Your task to perform on an android device: toggle wifi Image 0: 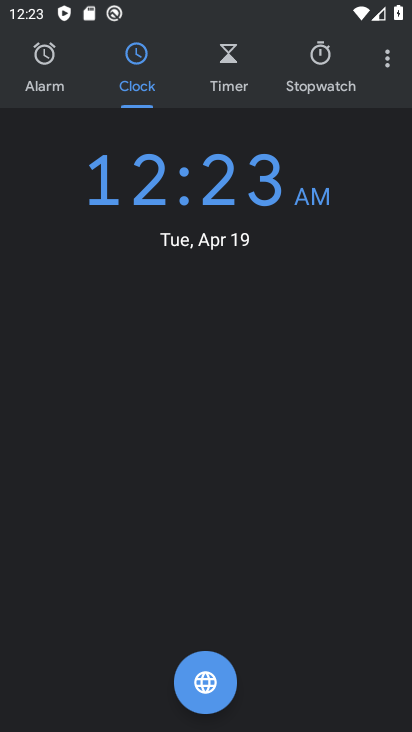
Step 0: press home button
Your task to perform on an android device: toggle wifi Image 1: 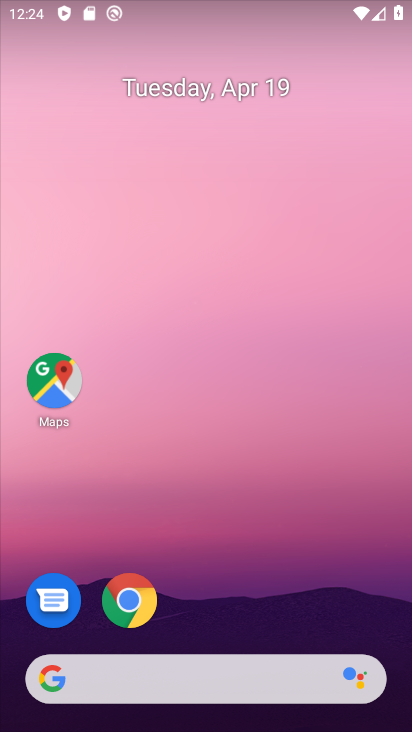
Step 1: drag from (302, 602) to (231, 205)
Your task to perform on an android device: toggle wifi Image 2: 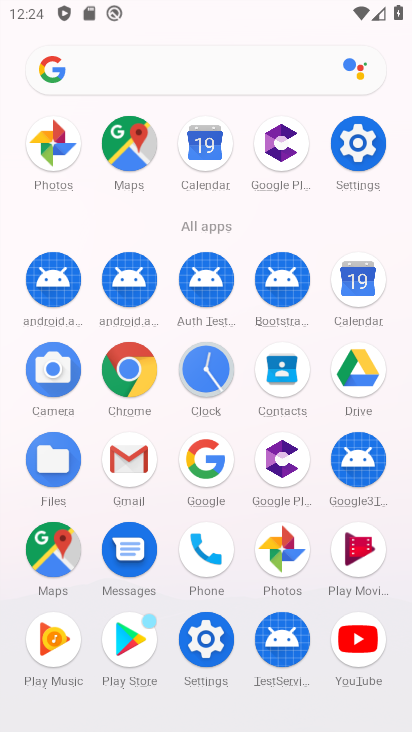
Step 2: click (352, 158)
Your task to perform on an android device: toggle wifi Image 3: 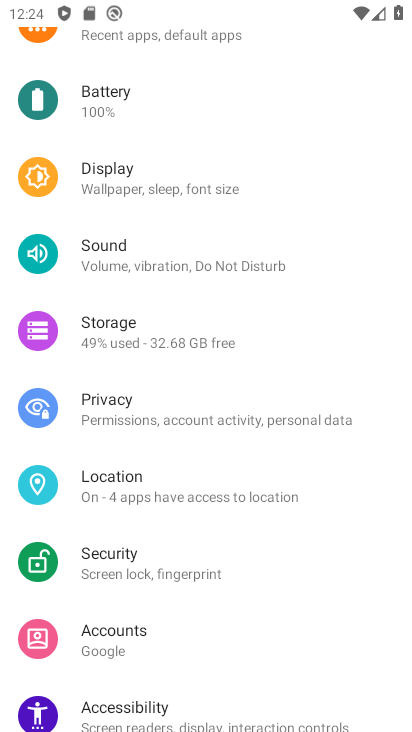
Step 3: drag from (235, 152) to (212, 608)
Your task to perform on an android device: toggle wifi Image 4: 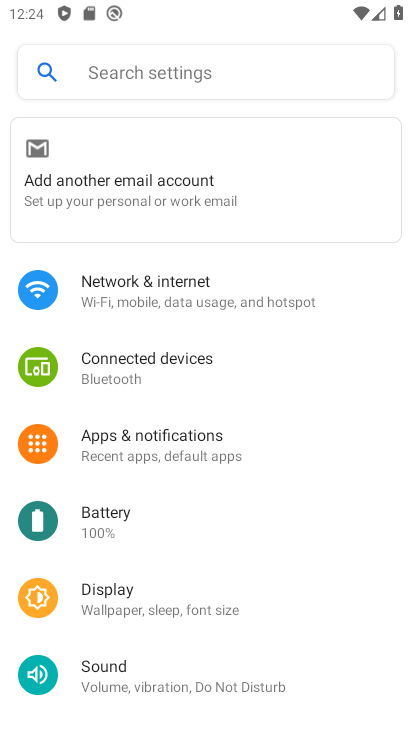
Step 4: click (203, 315)
Your task to perform on an android device: toggle wifi Image 5: 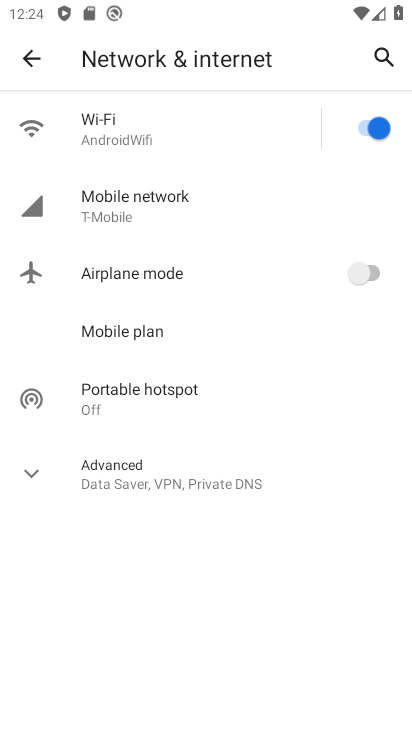
Step 5: click (254, 120)
Your task to perform on an android device: toggle wifi Image 6: 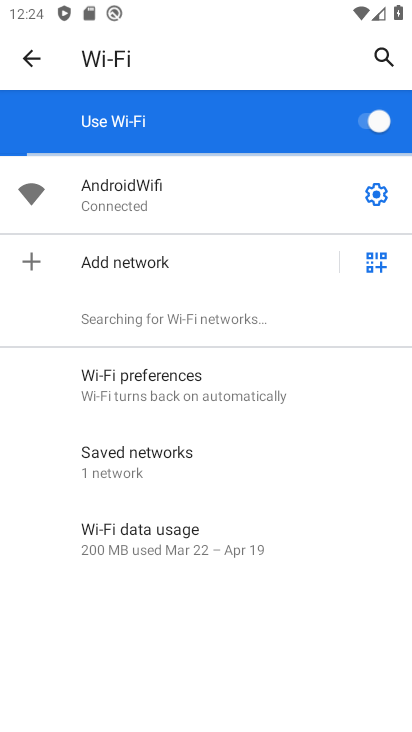
Step 6: click (359, 128)
Your task to perform on an android device: toggle wifi Image 7: 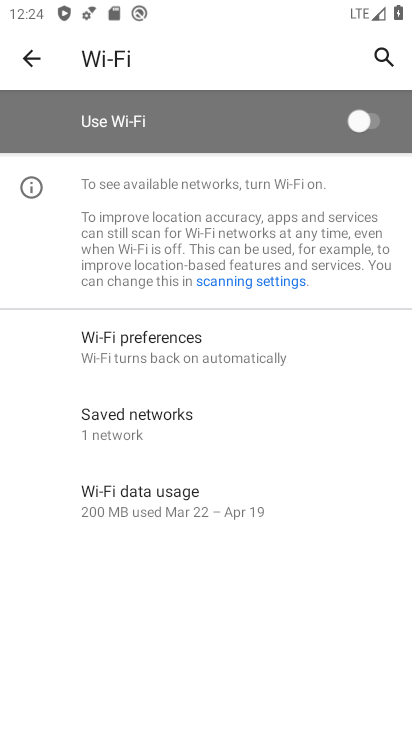
Step 7: task complete